Your task to perform on an android device: open chrome privacy settings Image 0: 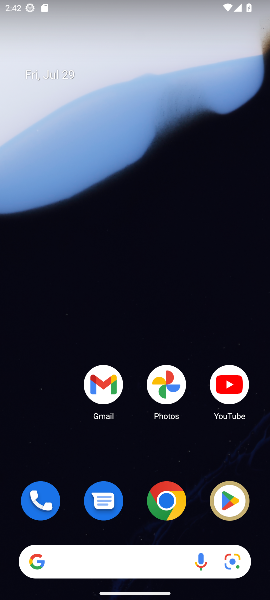
Step 0: click (179, 505)
Your task to perform on an android device: open chrome privacy settings Image 1: 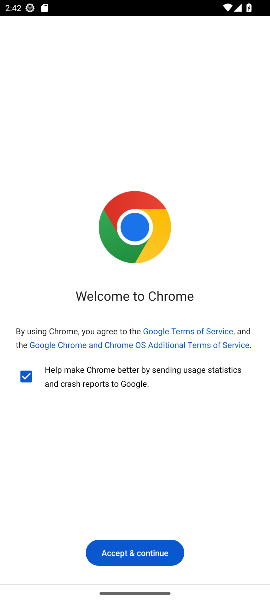
Step 1: click (157, 555)
Your task to perform on an android device: open chrome privacy settings Image 2: 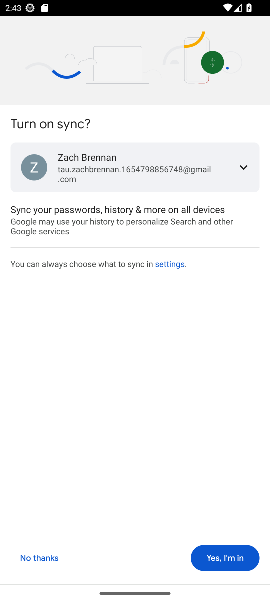
Step 2: click (213, 544)
Your task to perform on an android device: open chrome privacy settings Image 3: 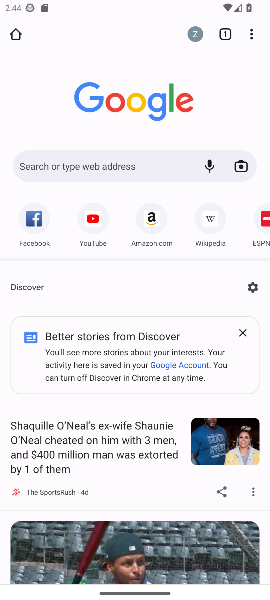
Step 3: click (252, 44)
Your task to perform on an android device: open chrome privacy settings Image 4: 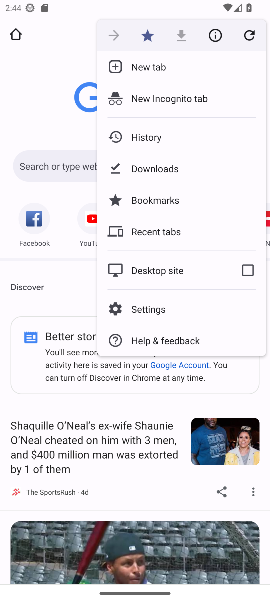
Step 4: click (179, 307)
Your task to perform on an android device: open chrome privacy settings Image 5: 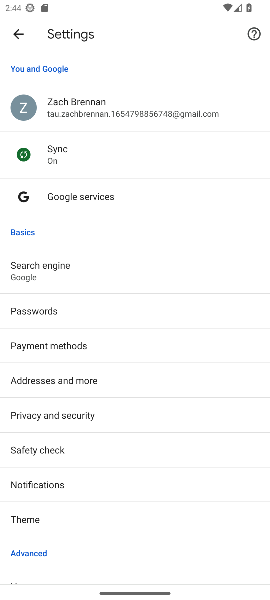
Step 5: drag from (93, 523) to (113, 305)
Your task to perform on an android device: open chrome privacy settings Image 6: 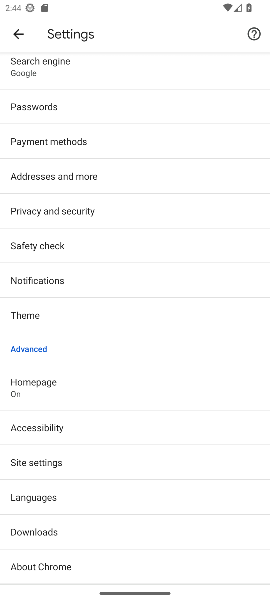
Step 6: drag from (76, 152) to (83, 207)
Your task to perform on an android device: open chrome privacy settings Image 7: 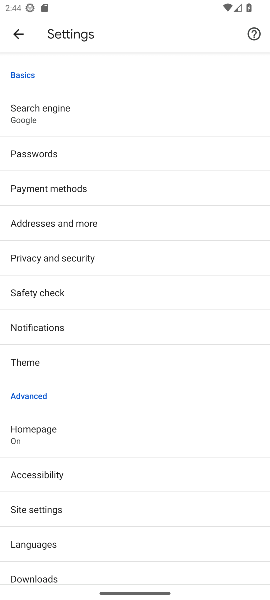
Step 7: click (83, 253)
Your task to perform on an android device: open chrome privacy settings Image 8: 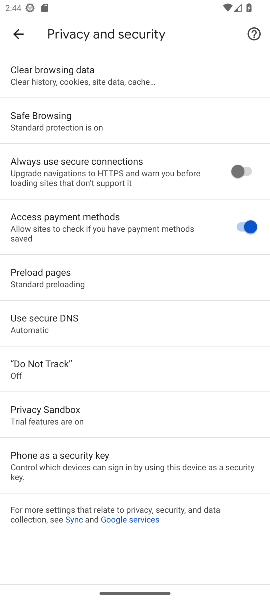
Step 8: task complete